Your task to perform on an android device: toggle translation in the chrome app Image 0: 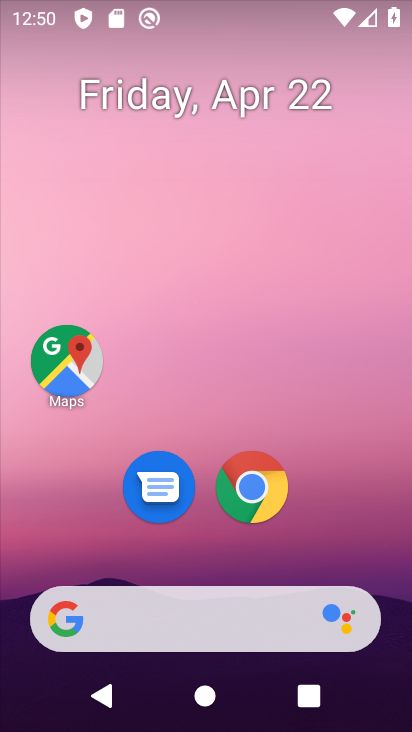
Step 0: click (246, 485)
Your task to perform on an android device: toggle translation in the chrome app Image 1: 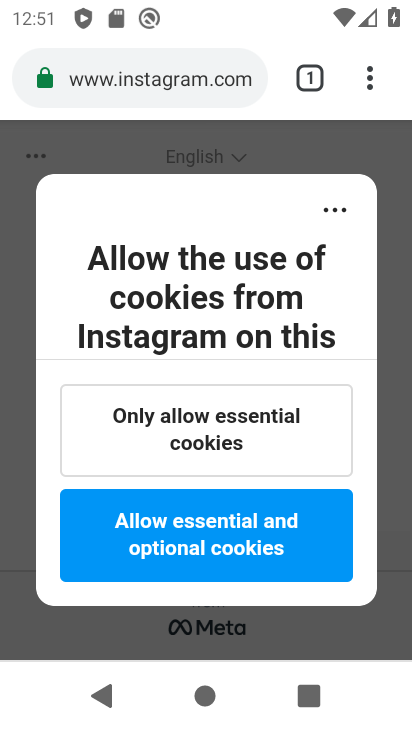
Step 1: drag from (368, 76) to (117, 542)
Your task to perform on an android device: toggle translation in the chrome app Image 2: 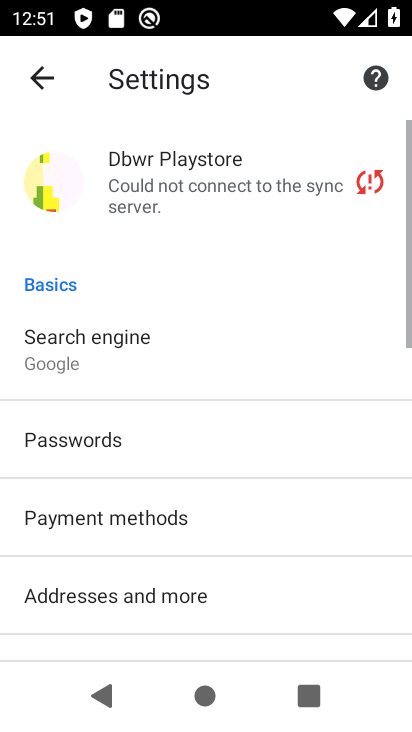
Step 2: drag from (231, 593) to (244, 270)
Your task to perform on an android device: toggle translation in the chrome app Image 3: 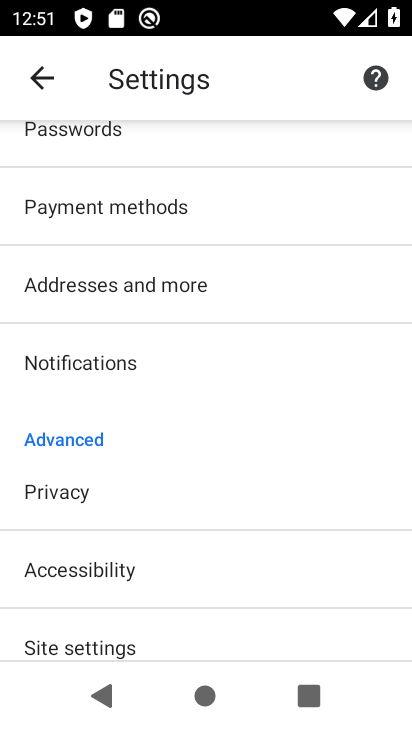
Step 3: drag from (253, 319) to (279, 219)
Your task to perform on an android device: toggle translation in the chrome app Image 4: 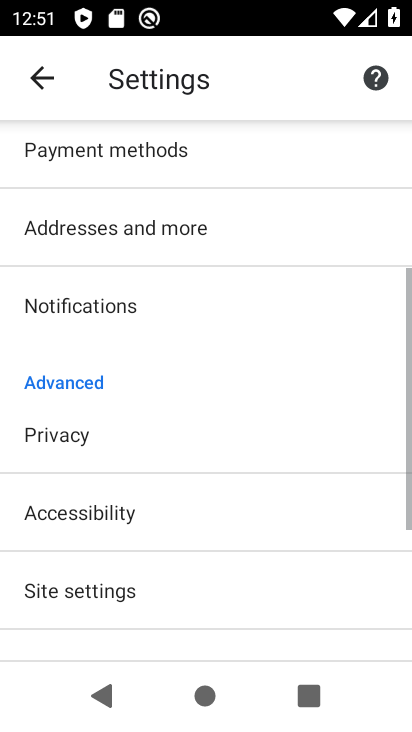
Step 4: drag from (245, 307) to (270, 233)
Your task to perform on an android device: toggle translation in the chrome app Image 5: 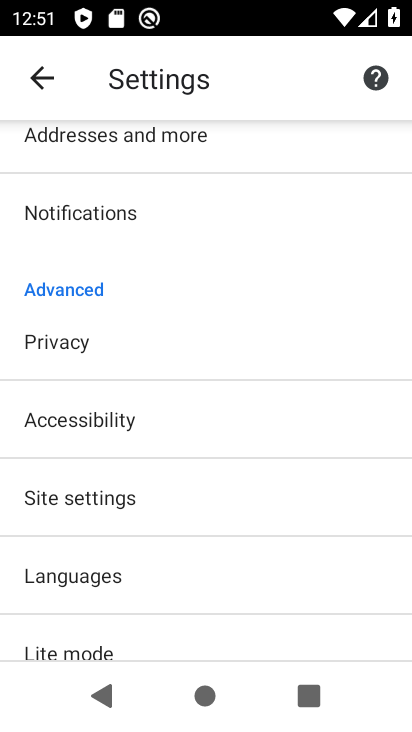
Step 5: click (114, 567)
Your task to perform on an android device: toggle translation in the chrome app Image 6: 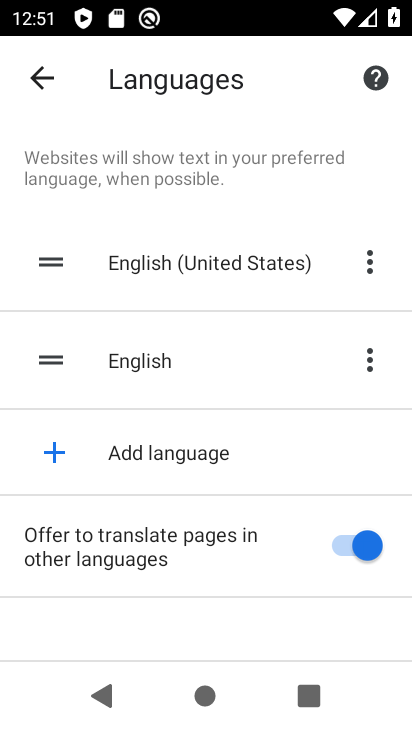
Step 6: click (344, 545)
Your task to perform on an android device: toggle translation in the chrome app Image 7: 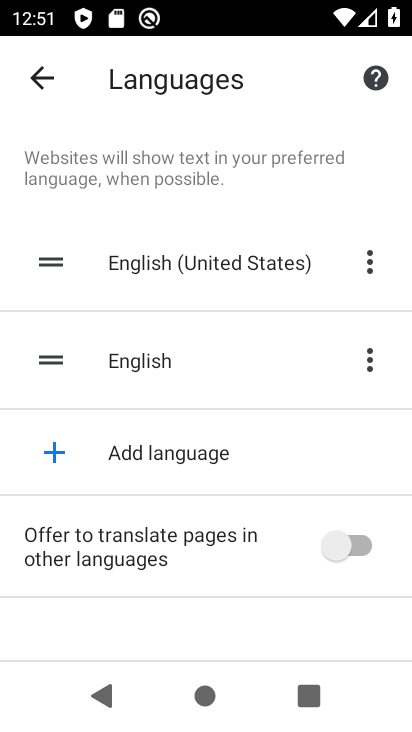
Step 7: task complete